Your task to perform on an android device: Search for a new lawnmower on Lowes.com Image 0: 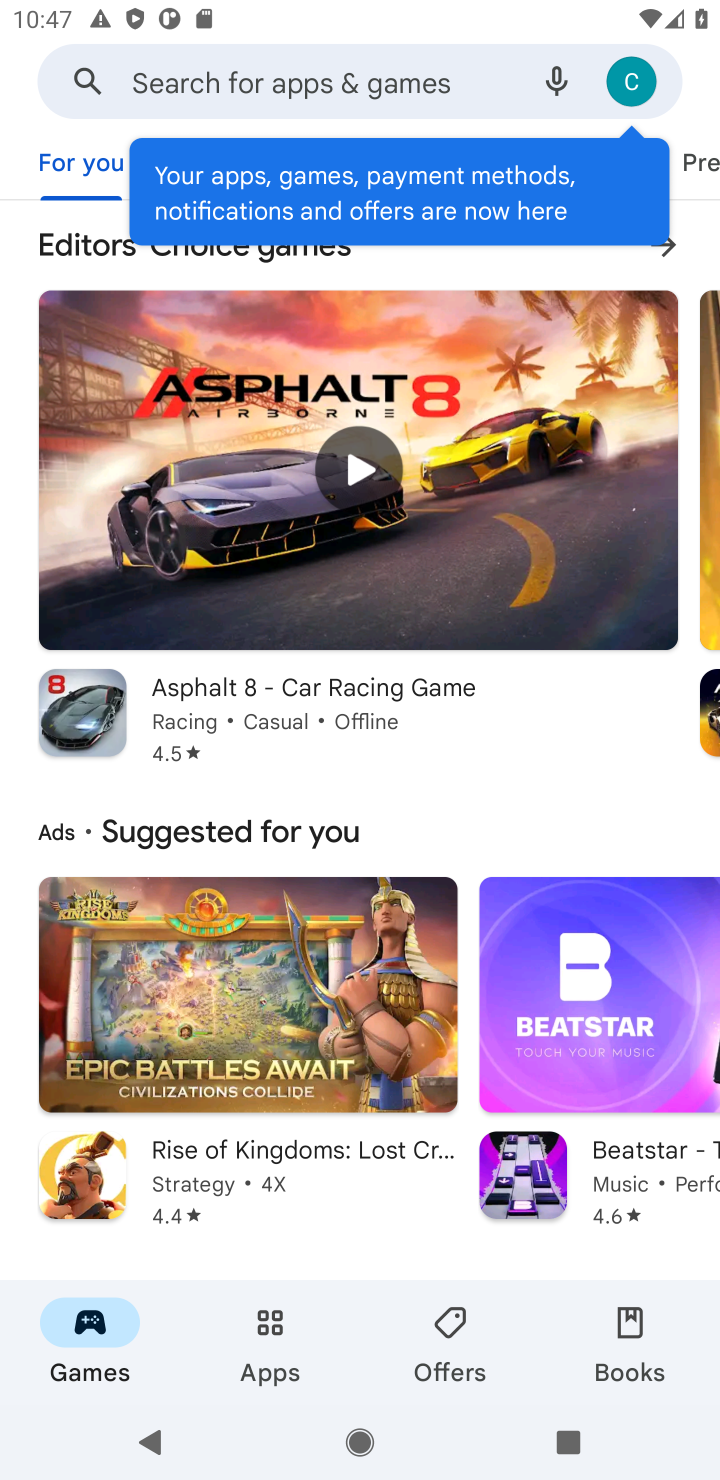
Step 0: press home button
Your task to perform on an android device: Search for a new lawnmower on Lowes.com Image 1: 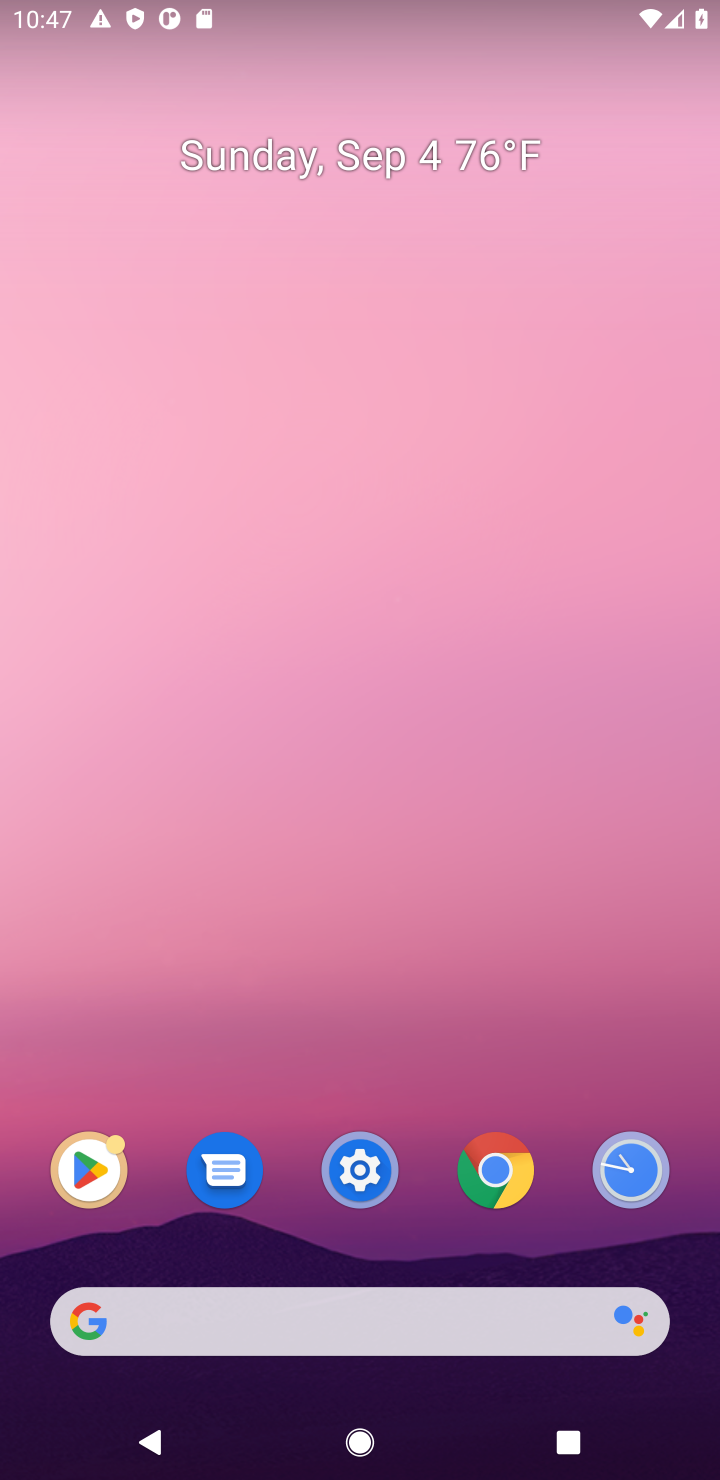
Step 1: click (310, 1313)
Your task to perform on an android device: Search for a new lawnmower on Lowes.com Image 2: 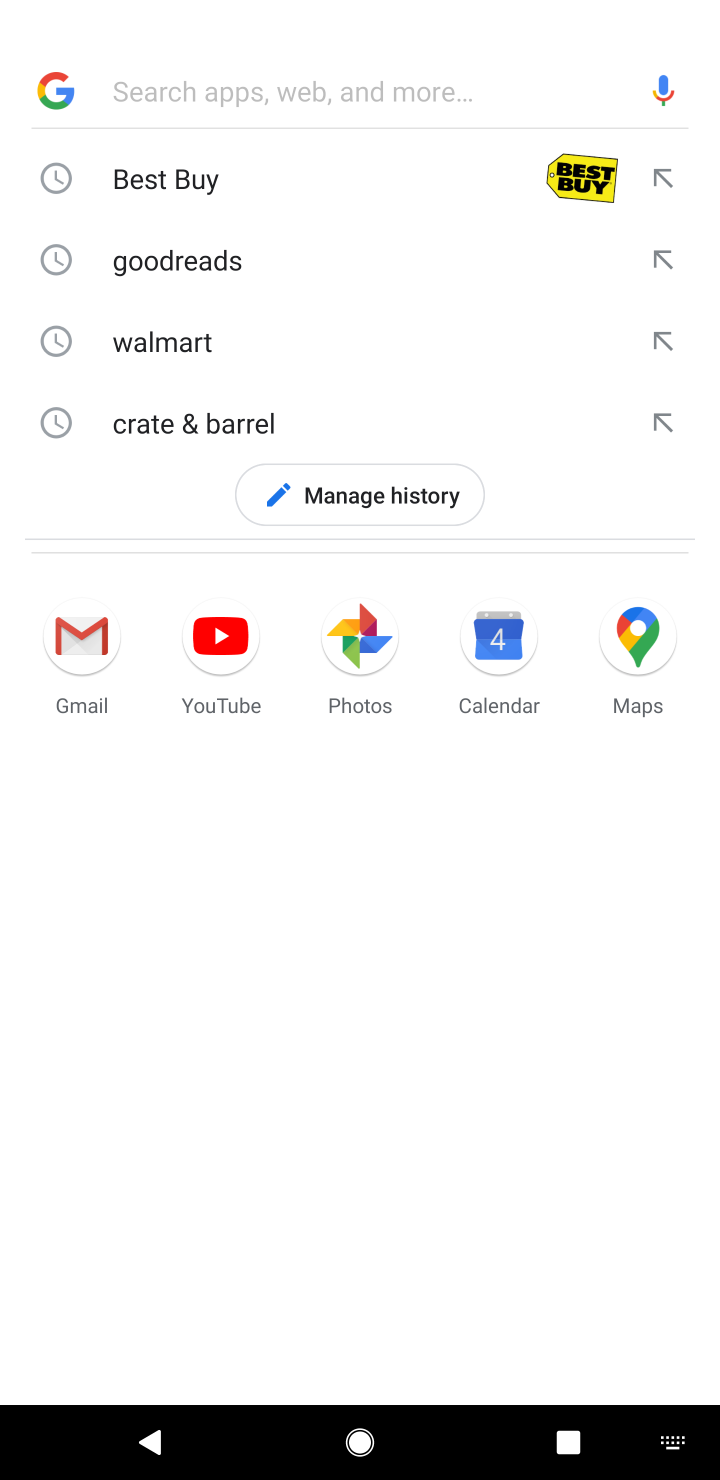
Step 2: type "Lowes.com"
Your task to perform on an android device: Search for a new lawnmower on Lowes.com Image 3: 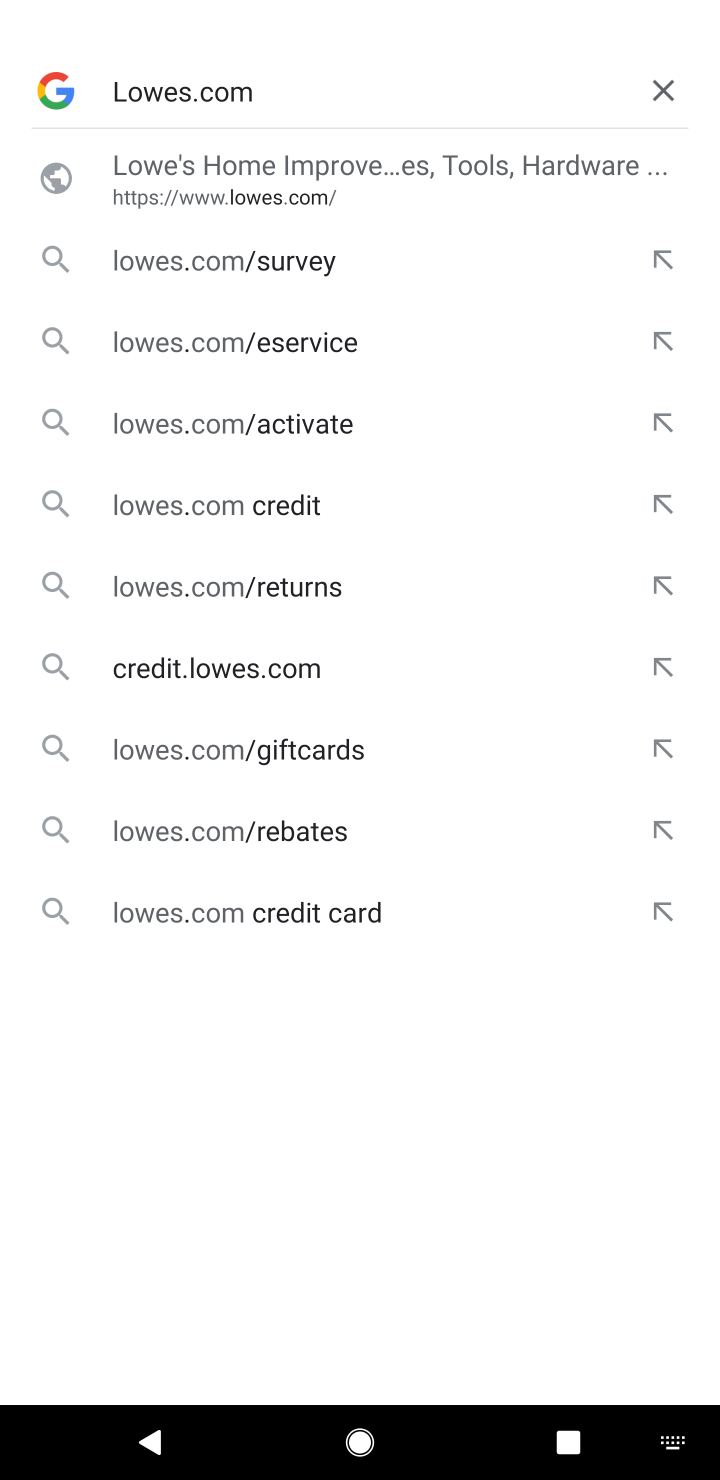
Step 3: click (358, 180)
Your task to perform on an android device: Search for a new lawnmower on Lowes.com Image 4: 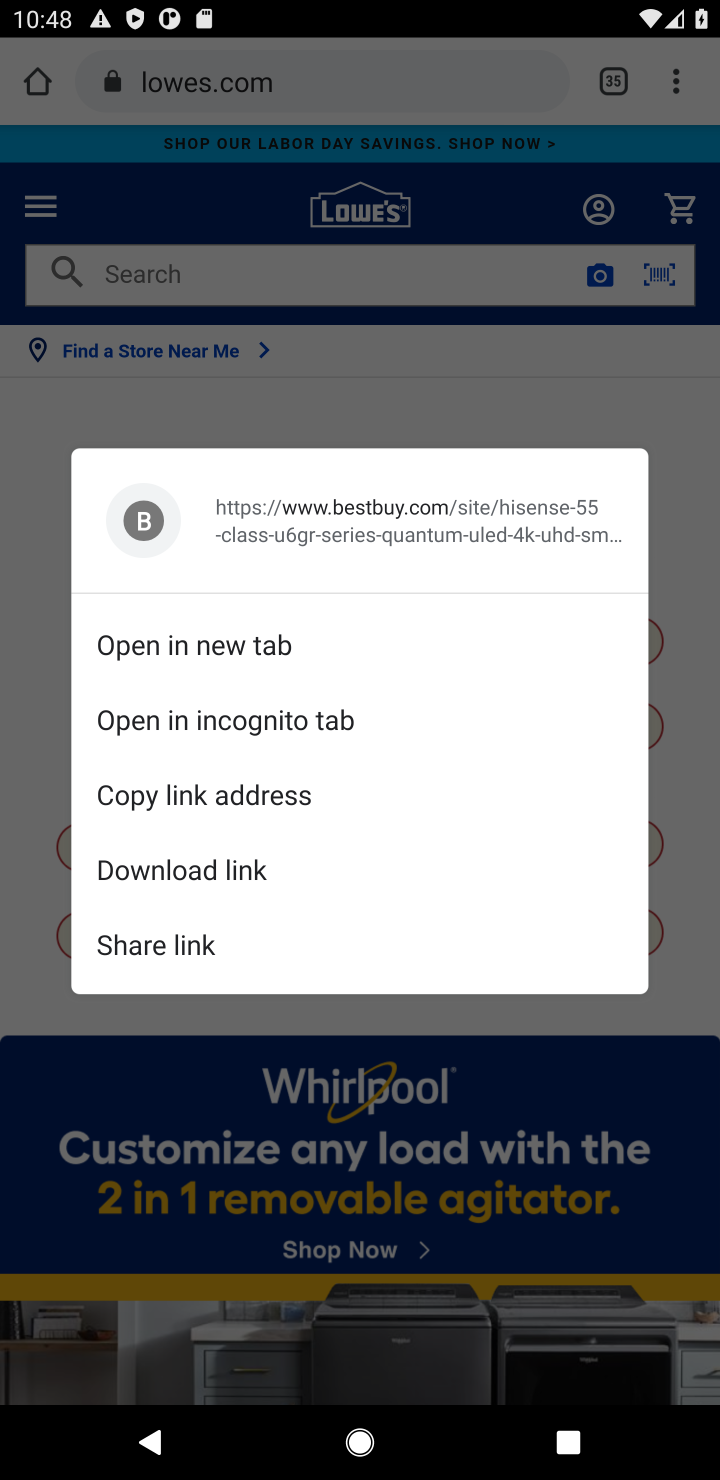
Step 4: click (317, 384)
Your task to perform on an android device: Search for a new lawnmower on Lowes.com Image 5: 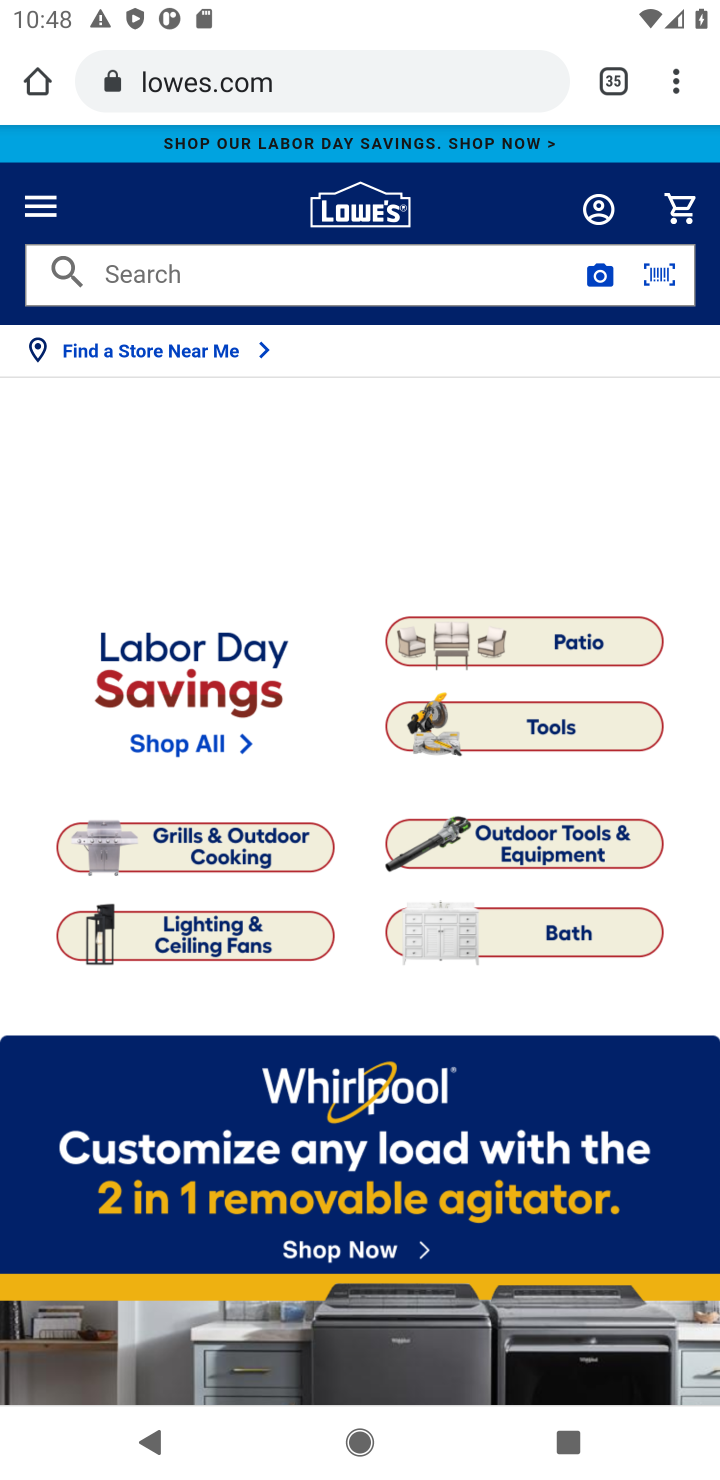
Step 5: click (216, 277)
Your task to perform on an android device: Search for a new lawnmower on Lowes.com Image 6: 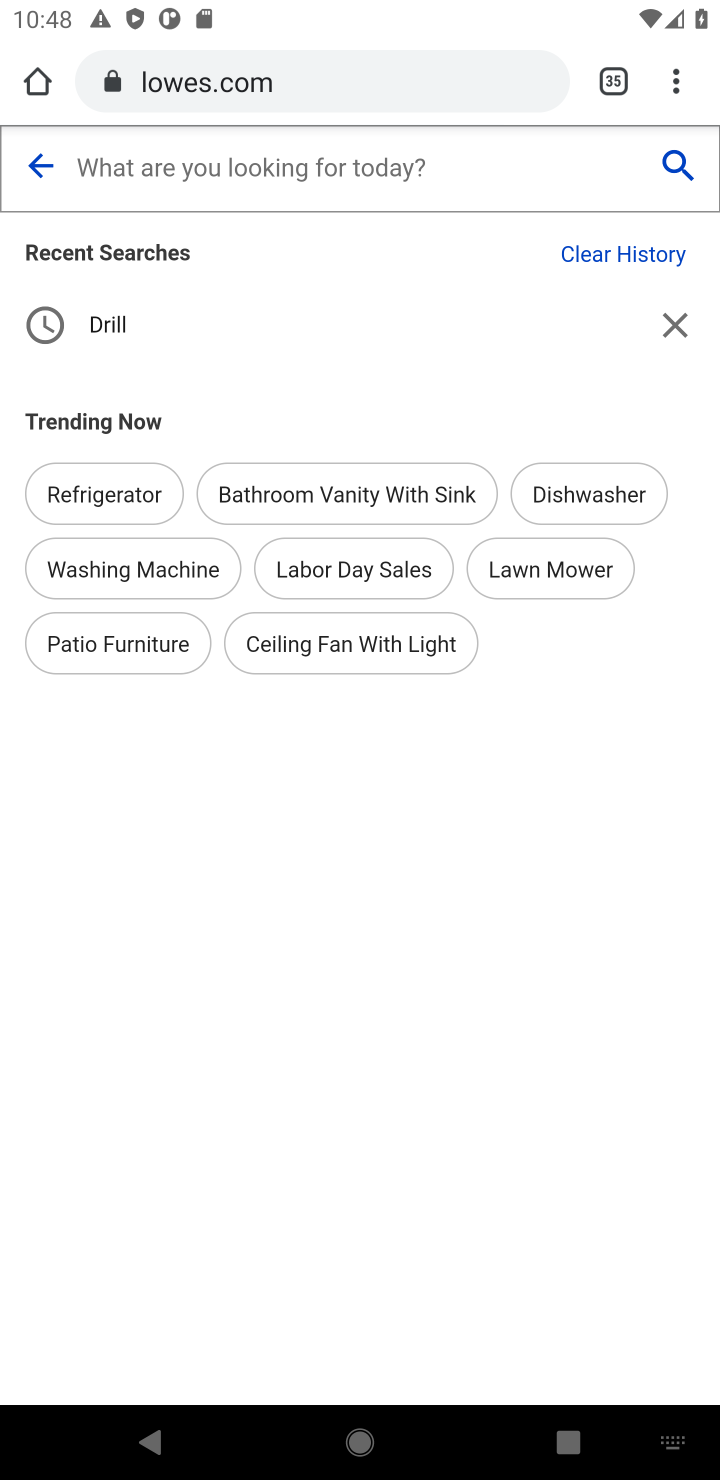
Step 6: type "lawnmower"
Your task to perform on an android device: Search for a new lawnmower on Lowes.com Image 7: 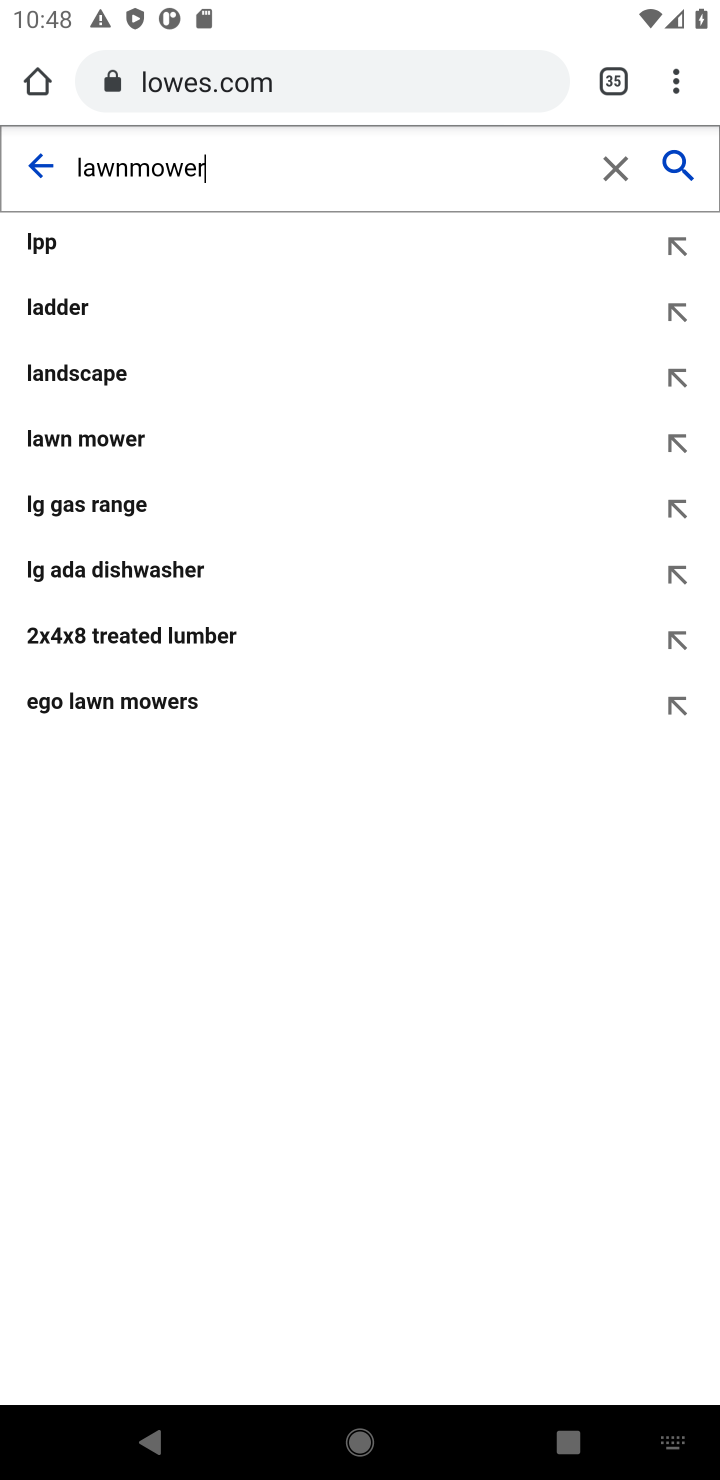
Step 7: type ""
Your task to perform on an android device: Search for a new lawnmower on Lowes.com Image 8: 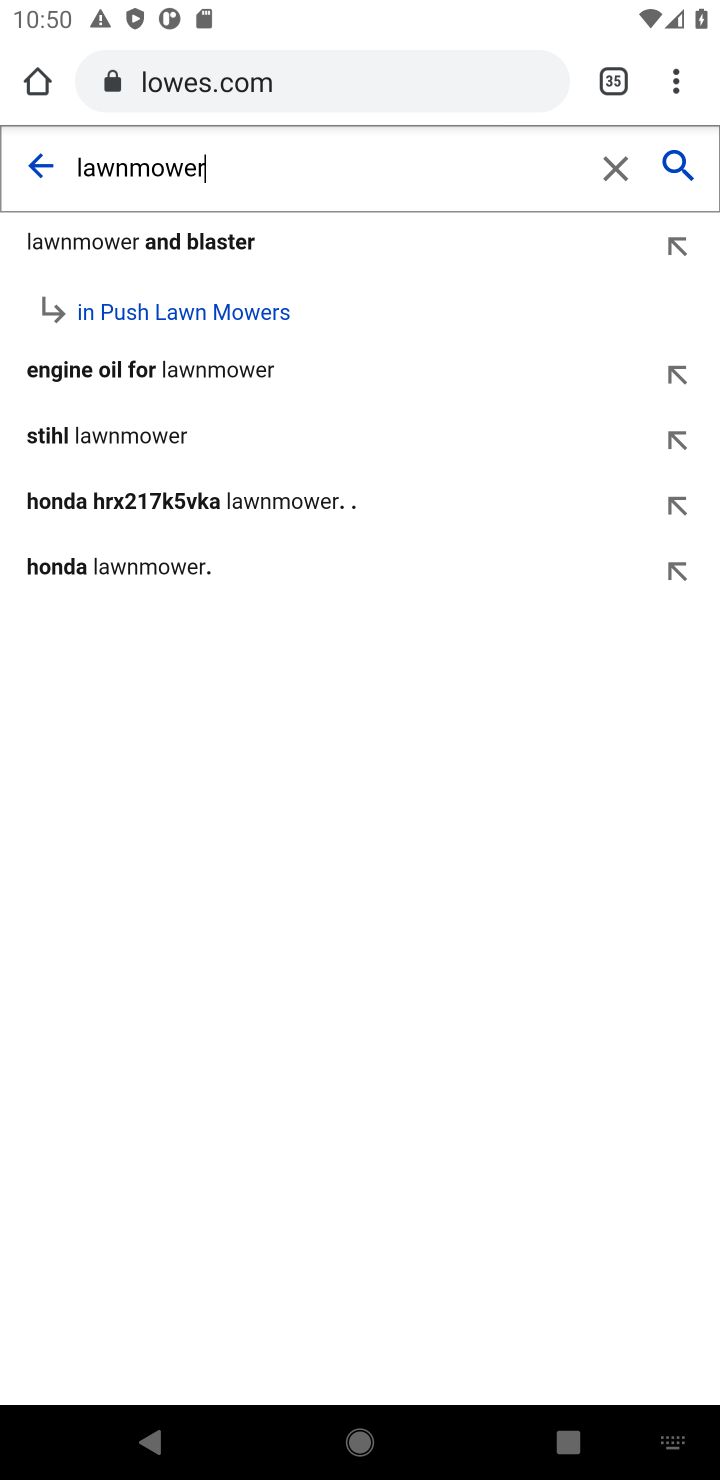
Step 8: click (673, 166)
Your task to perform on an android device: Search for a new lawnmower on Lowes.com Image 9: 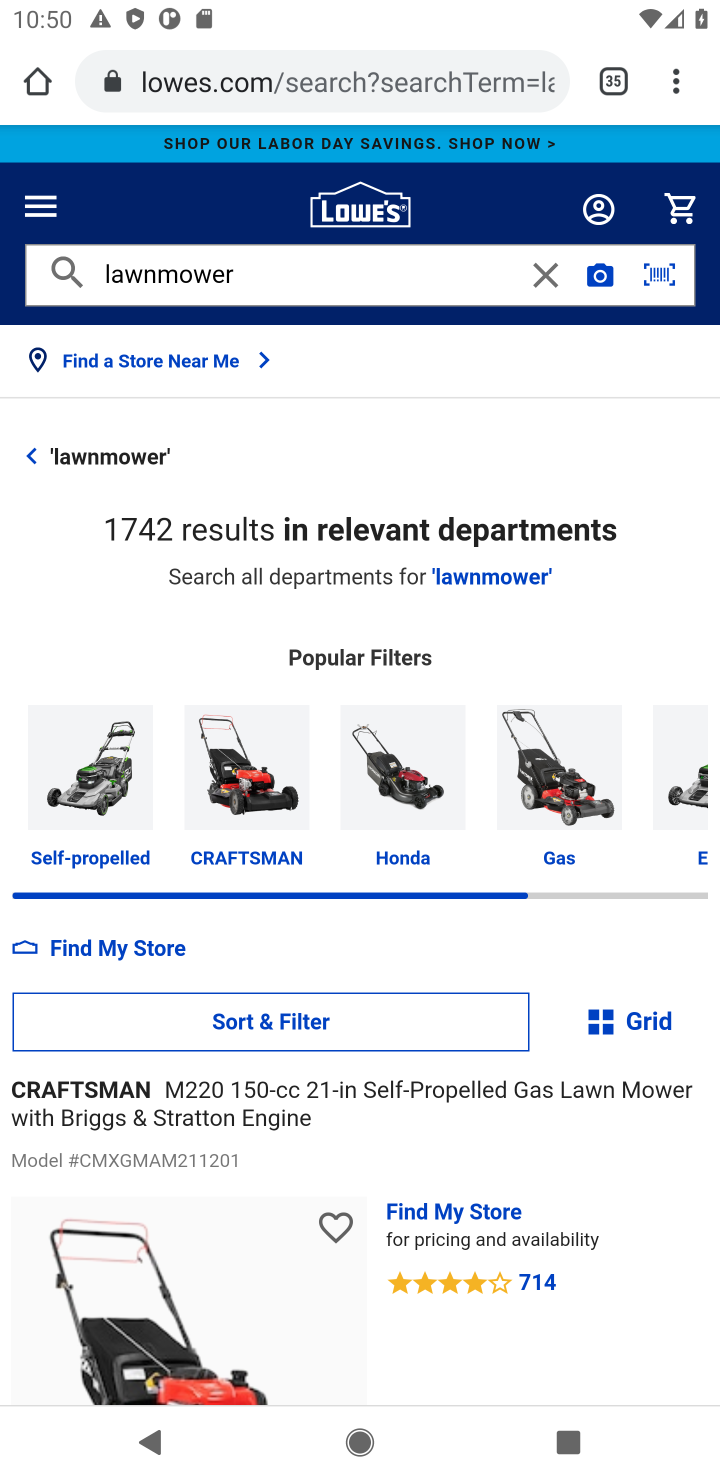
Step 9: task complete